Your task to perform on an android device: clear history in the chrome app Image 0: 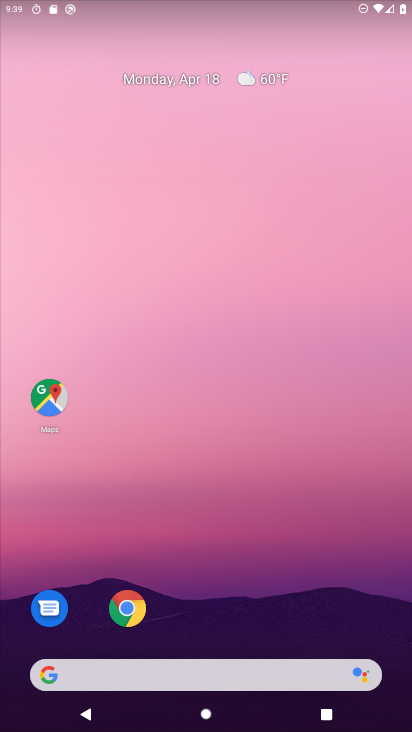
Step 0: click (128, 605)
Your task to perform on an android device: clear history in the chrome app Image 1: 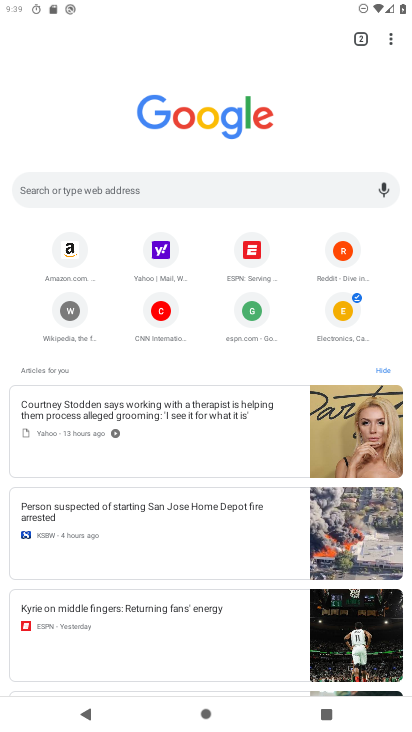
Step 1: click (388, 36)
Your task to perform on an android device: clear history in the chrome app Image 2: 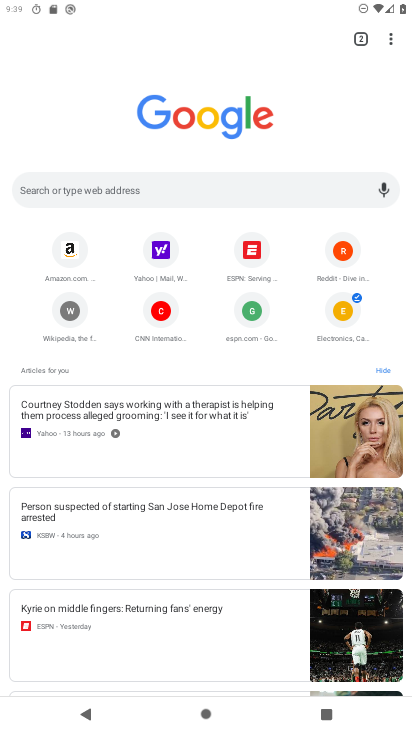
Step 2: click (388, 36)
Your task to perform on an android device: clear history in the chrome app Image 3: 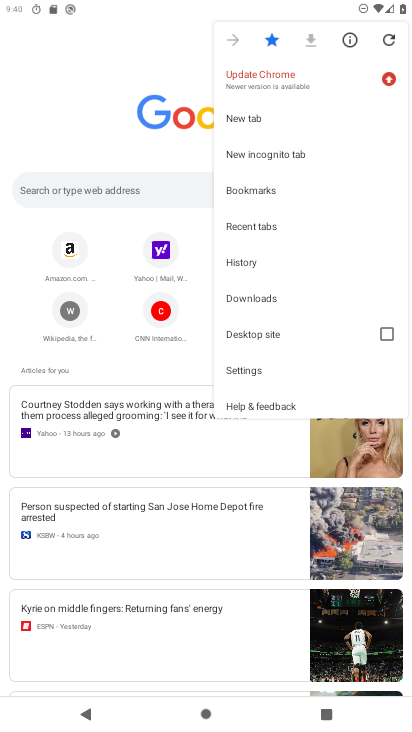
Step 3: click (243, 261)
Your task to perform on an android device: clear history in the chrome app Image 4: 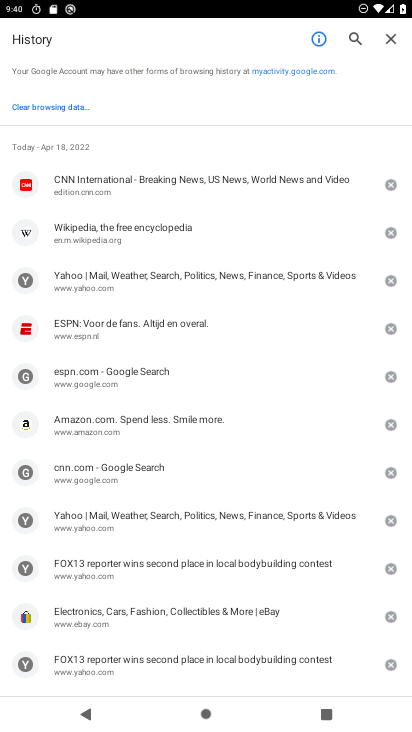
Step 4: click (65, 109)
Your task to perform on an android device: clear history in the chrome app Image 5: 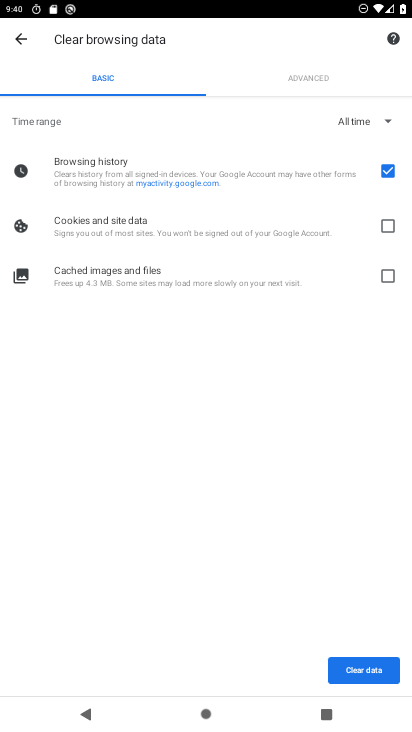
Step 5: click (382, 218)
Your task to perform on an android device: clear history in the chrome app Image 6: 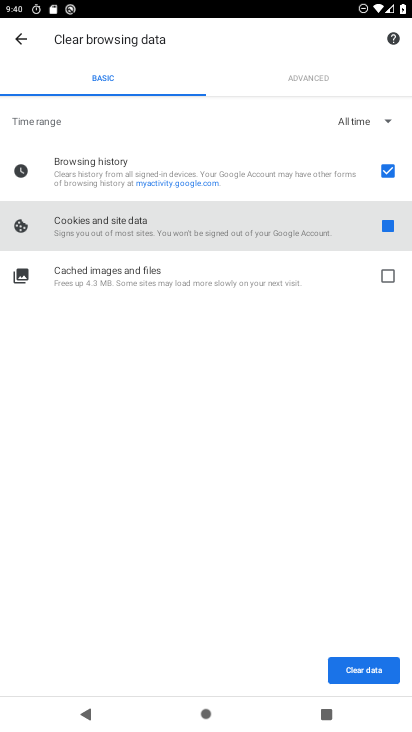
Step 6: click (383, 282)
Your task to perform on an android device: clear history in the chrome app Image 7: 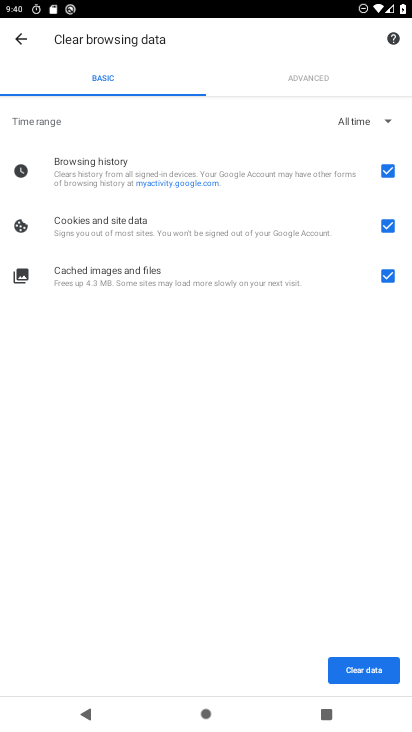
Step 7: click (361, 674)
Your task to perform on an android device: clear history in the chrome app Image 8: 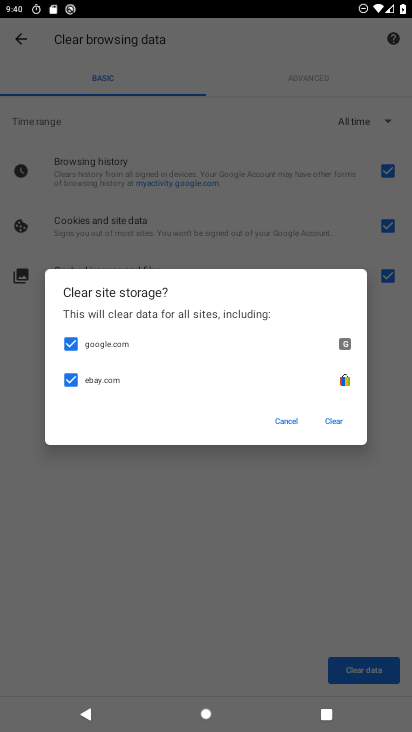
Step 8: click (330, 418)
Your task to perform on an android device: clear history in the chrome app Image 9: 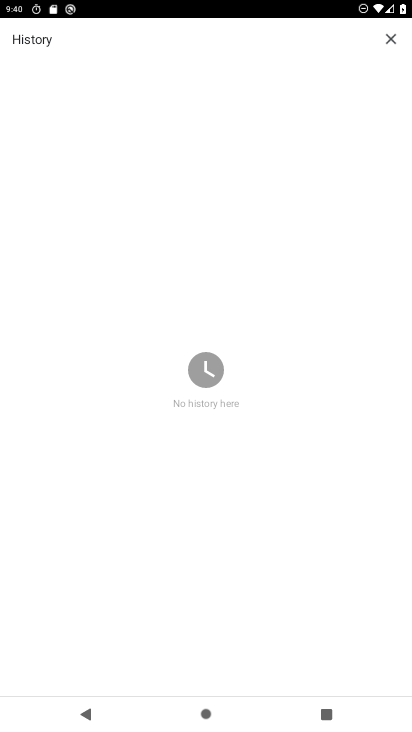
Step 9: task complete